Your task to perform on an android device: star an email in the gmail app Image 0: 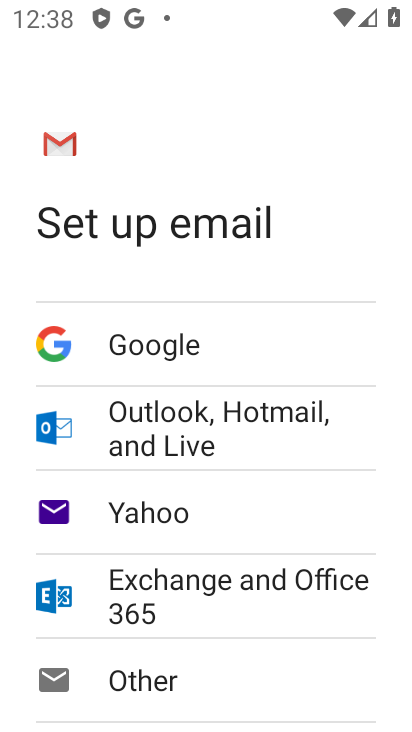
Step 0: press home button
Your task to perform on an android device: star an email in the gmail app Image 1: 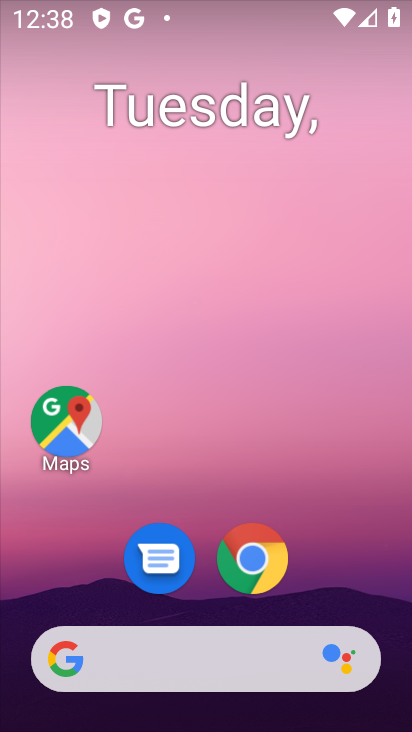
Step 1: drag from (388, 601) to (386, 107)
Your task to perform on an android device: star an email in the gmail app Image 2: 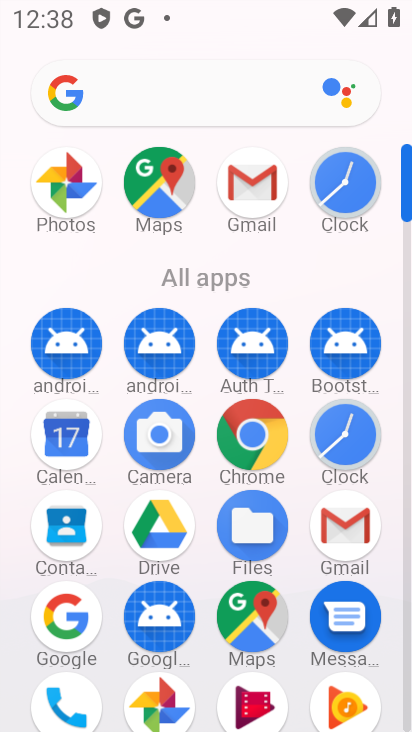
Step 2: click (332, 542)
Your task to perform on an android device: star an email in the gmail app Image 3: 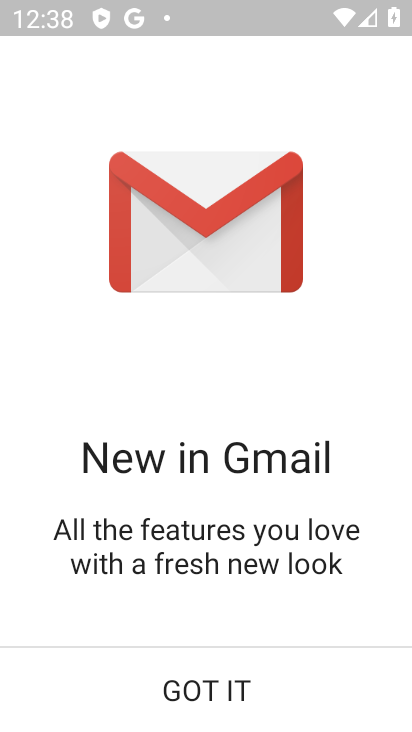
Step 3: click (328, 687)
Your task to perform on an android device: star an email in the gmail app Image 4: 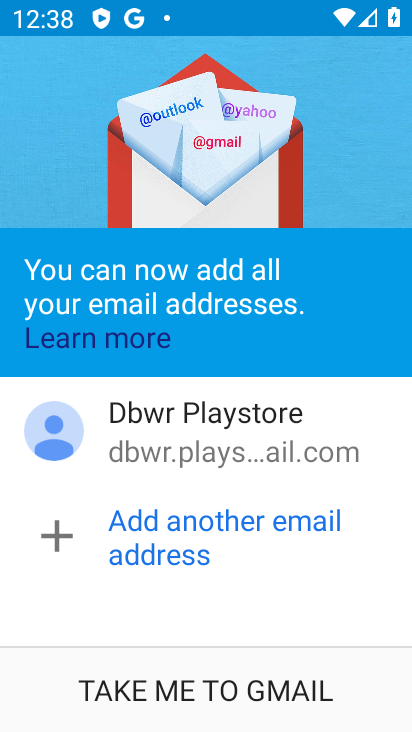
Step 4: click (328, 687)
Your task to perform on an android device: star an email in the gmail app Image 5: 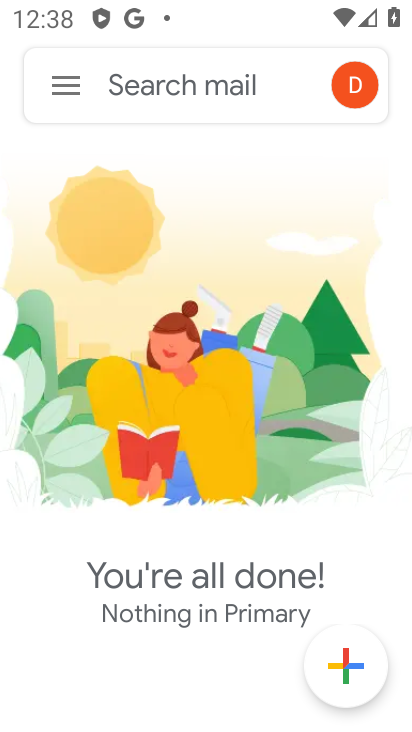
Step 5: click (78, 104)
Your task to perform on an android device: star an email in the gmail app Image 6: 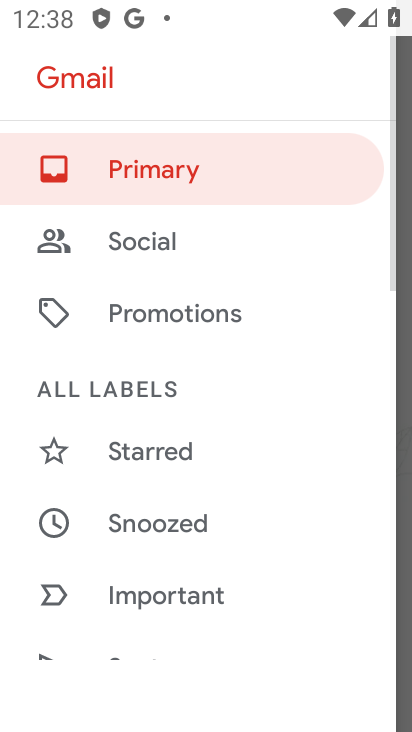
Step 6: drag from (336, 541) to (329, 423)
Your task to perform on an android device: star an email in the gmail app Image 7: 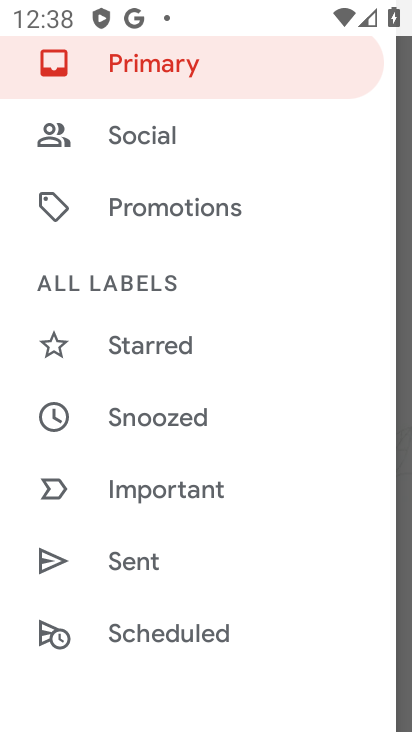
Step 7: drag from (318, 567) to (326, 445)
Your task to perform on an android device: star an email in the gmail app Image 8: 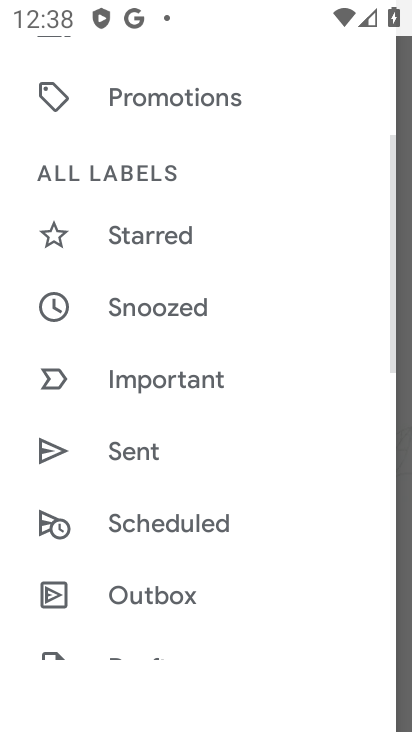
Step 8: drag from (309, 609) to (321, 488)
Your task to perform on an android device: star an email in the gmail app Image 9: 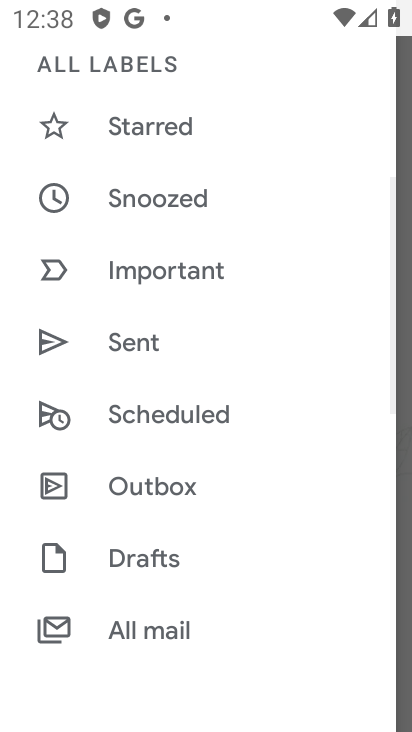
Step 9: drag from (324, 590) to (325, 489)
Your task to perform on an android device: star an email in the gmail app Image 10: 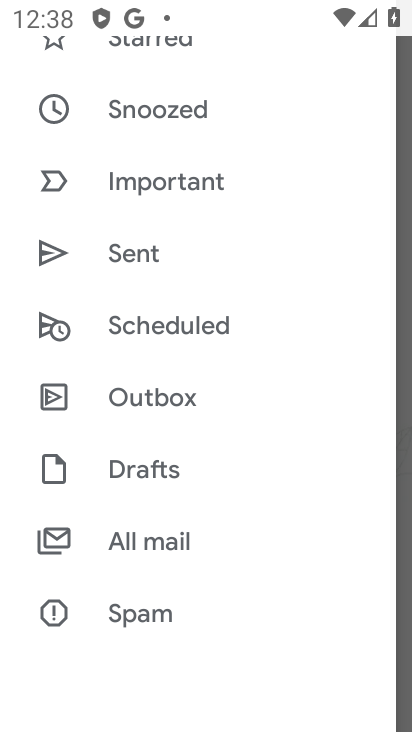
Step 10: drag from (293, 574) to (304, 448)
Your task to perform on an android device: star an email in the gmail app Image 11: 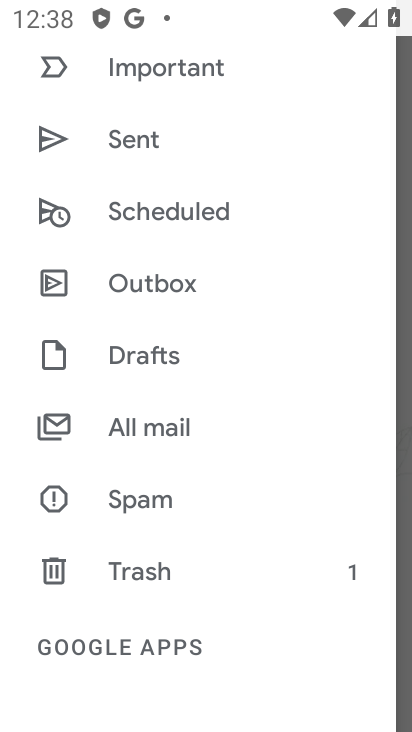
Step 11: drag from (267, 615) to (265, 502)
Your task to perform on an android device: star an email in the gmail app Image 12: 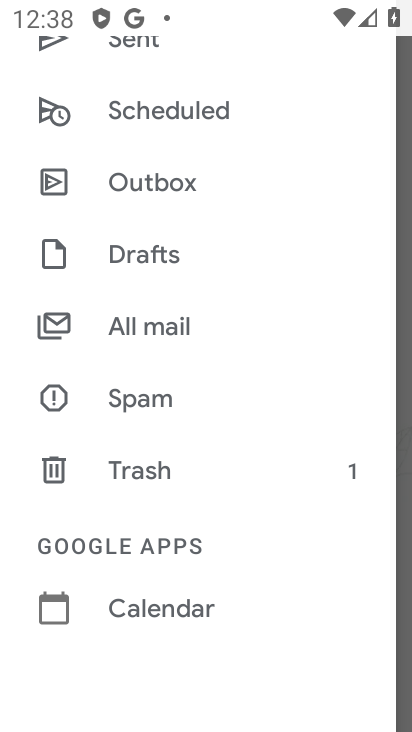
Step 12: drag from (283, 337) to (300, 505)
Your task to perform on an android device: star an email in the gmail app Image 13: 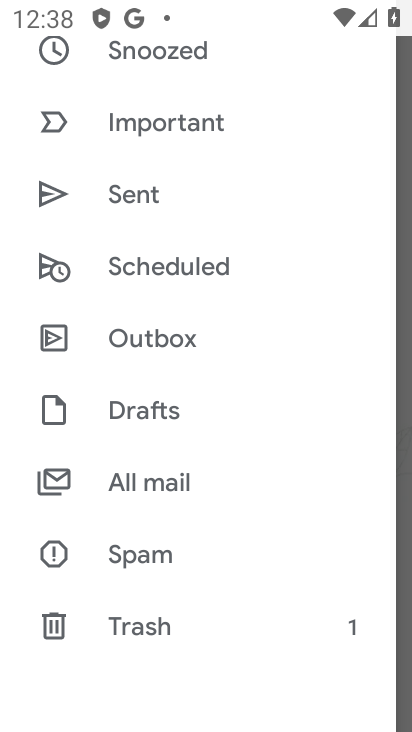
Step 13: drag from (311, 303) to (312, 504)
Your task to perform on an android device: star an email in the gmail app Image 14: 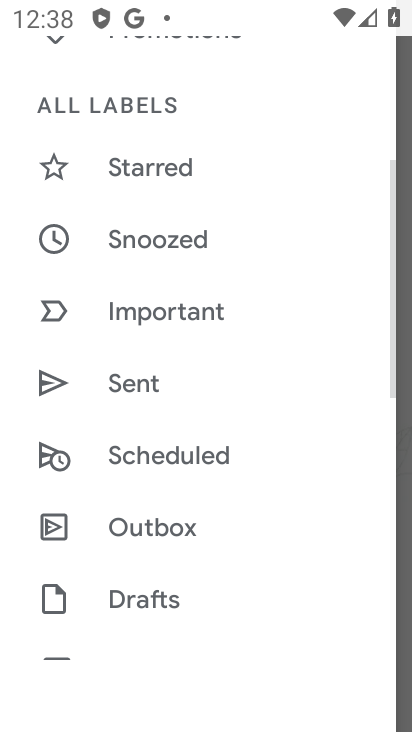
Step 14: drag from (305, 262) to (318, 446)
Your task to perform on an android device: star an email in the gmail app Image 15: 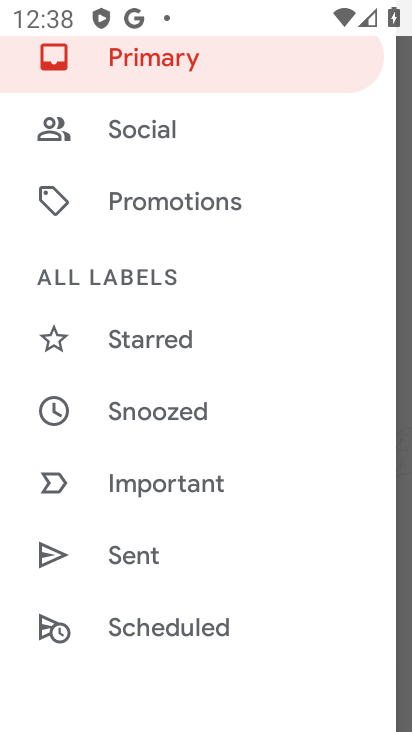
Step 15: drag from (309, 267) to (320, 416)
Your task to perform on an android device: star an email in the gmail app Image 16: 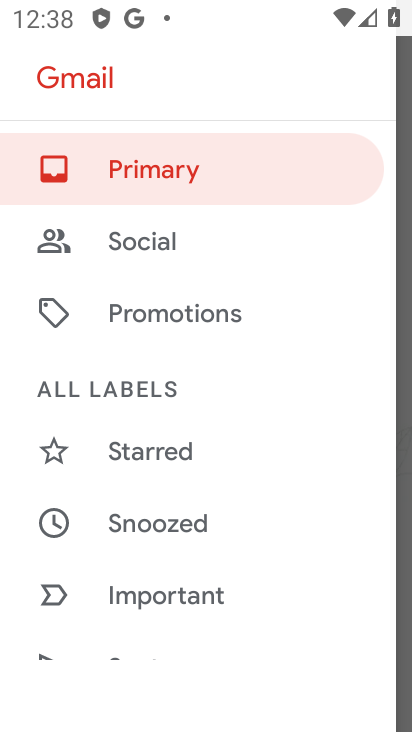
Step 16: click (251, 184)
Your task to perform on an android device: star an email in the gmail app Image 17: 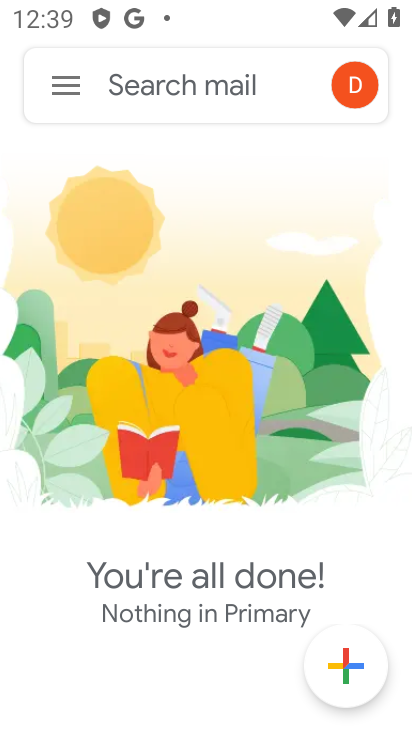
Step 17: task complete